Your task to perform on an android device: Go to battery settings Image 0: 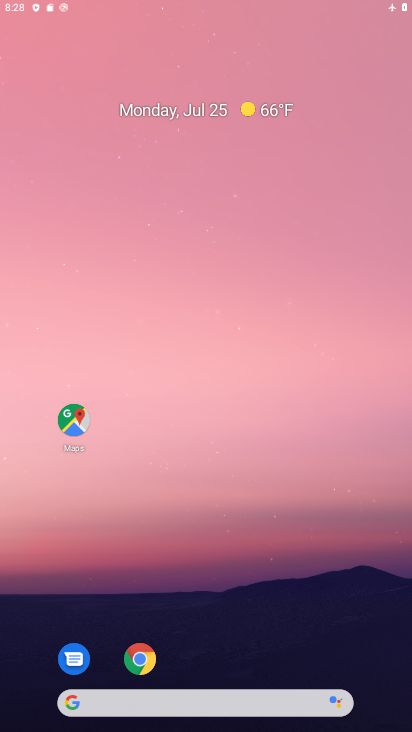
Step 0: drag from (238, 563) to (183, 137)
Your task to perform on an android device: Go to battery settings Image 1: 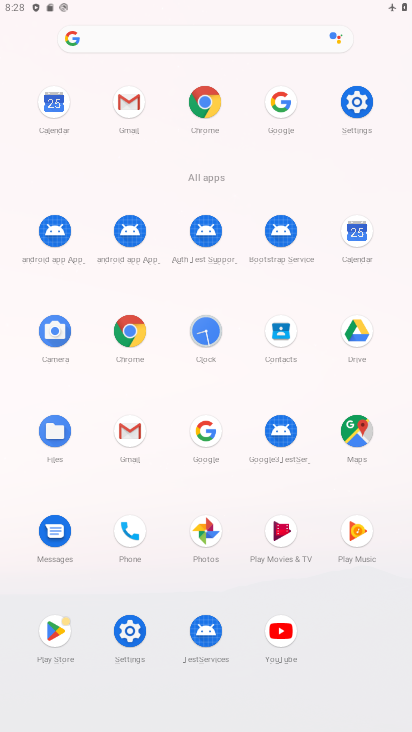
Step 1: click (350, 100)
Your task to perform on an android device: Go to battery settings Image 2: 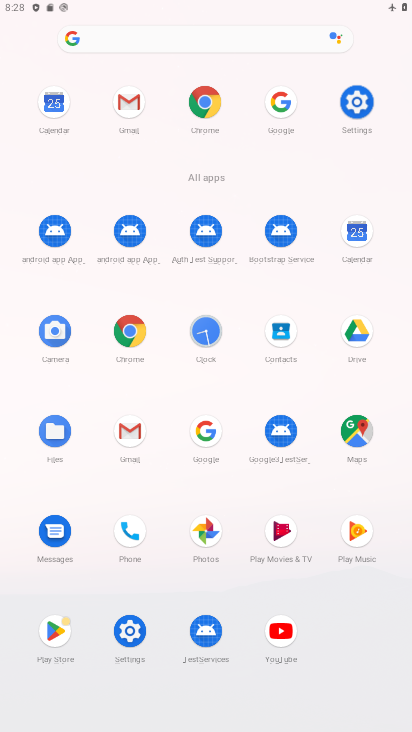
Step 2: click (350, 102)
Your task to perform on an android device: Go to battery settings Image 3: 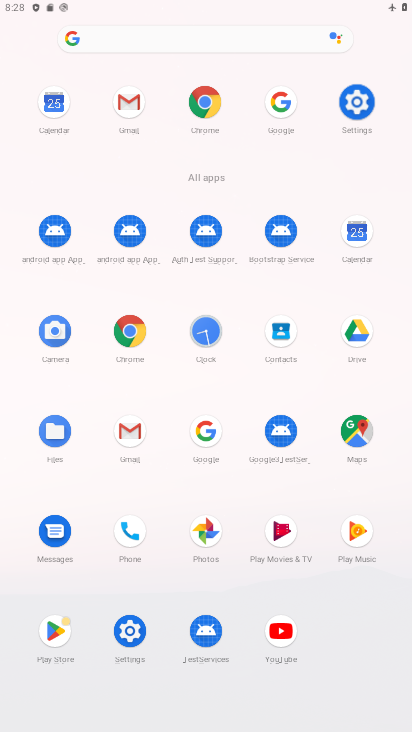
Step 3: click (351, 104)
Your task to perform on an android device: Go to battery settings Image 4: 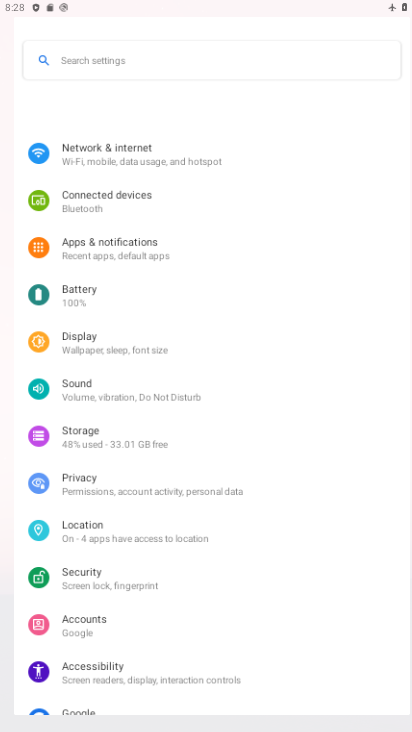
Step 4: click (352, 105)
Your task to perform on an android device: Go to battery settings Image 5: 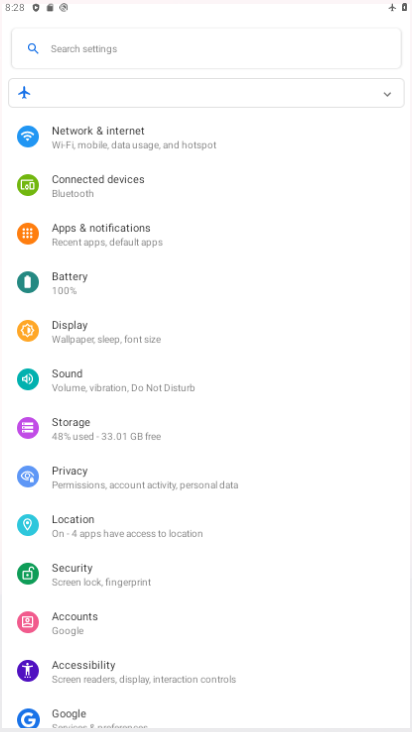
Step 5: click (352, 105)
Your task to perform on an android device: Go to battery settings Image 6: 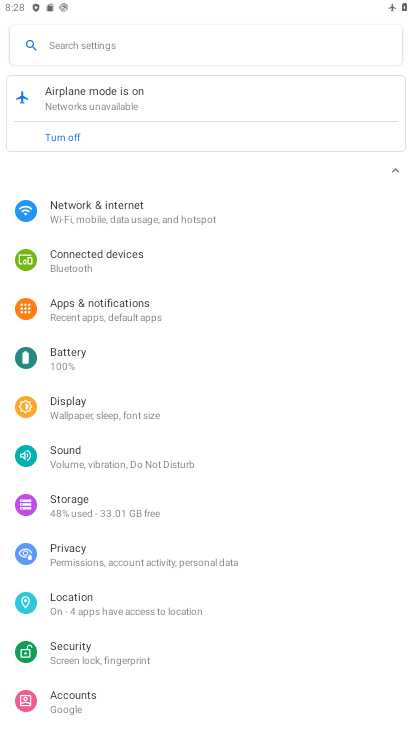
Step 6: click (54, 365)
Your task to perform on an android device: Go to battery settings Image 7: 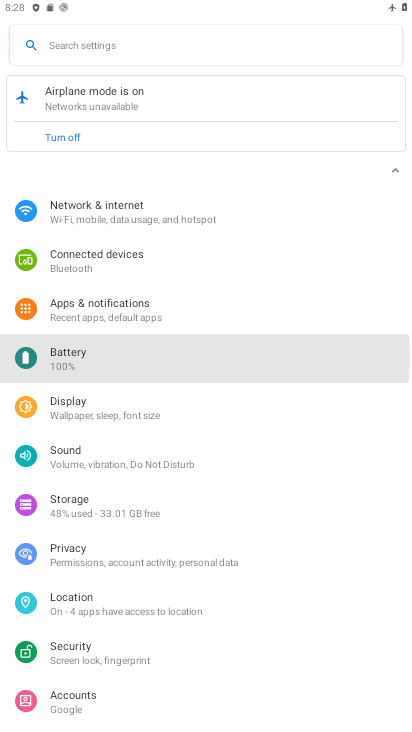
Step 7: click (50, 362)
Your task to perform on an android device: Go to battery settings Image 8: 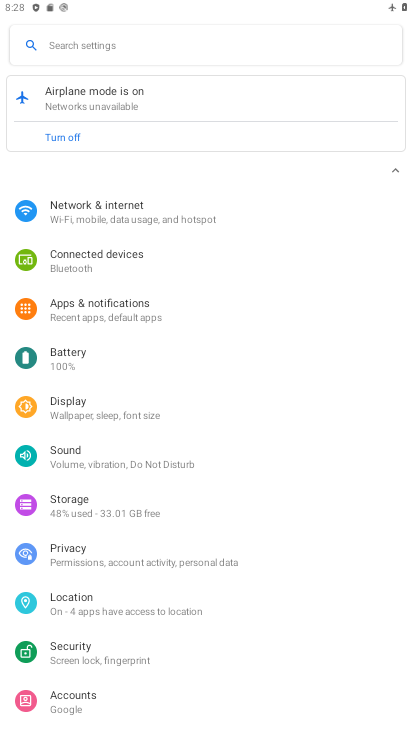
Step 8: click (50, 362)
Your task to perform on an android device: Go to battery settings Image 9: 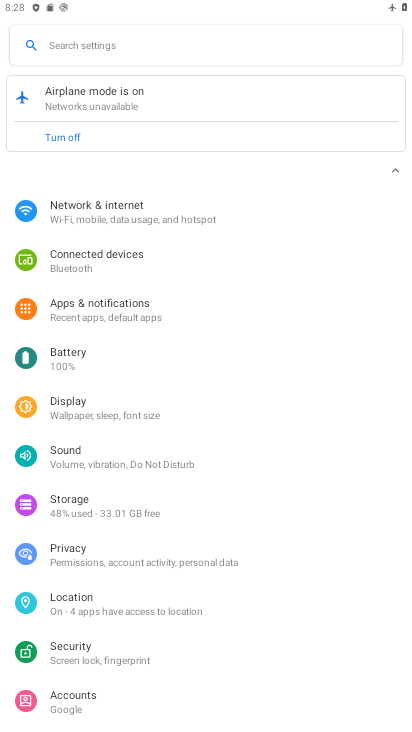
Step 9: click (51, 362)
Your task to perform on an android device: Go to battery settings Image 10: 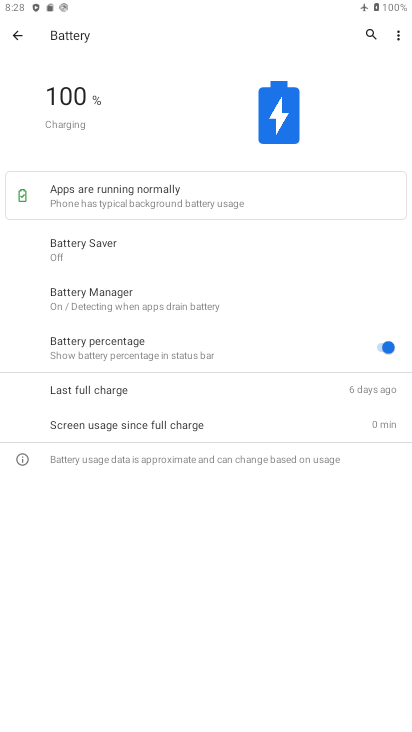
Step 10: task complete